Your task to perform on an android device: check android version Image 0: 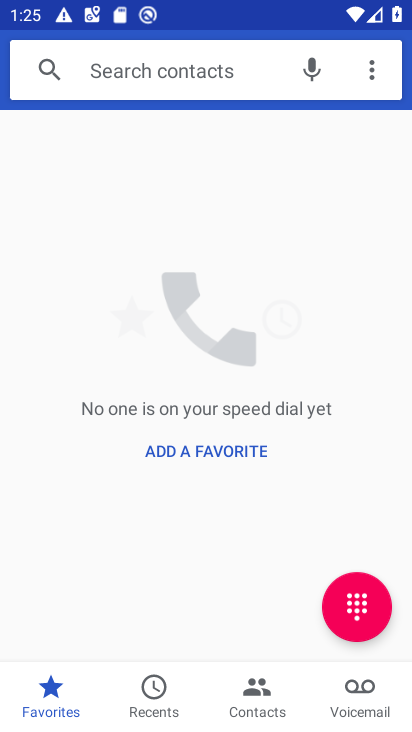
Step 0: press home button
Your task to perform on an android device: check android version Image 1: 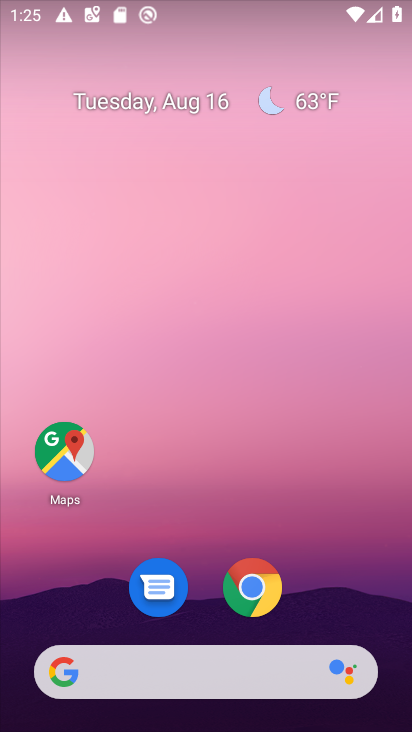
Step 1: drag from (195, 653) to (175, 460)
Your task to perform on an android device: check android version Image 2: 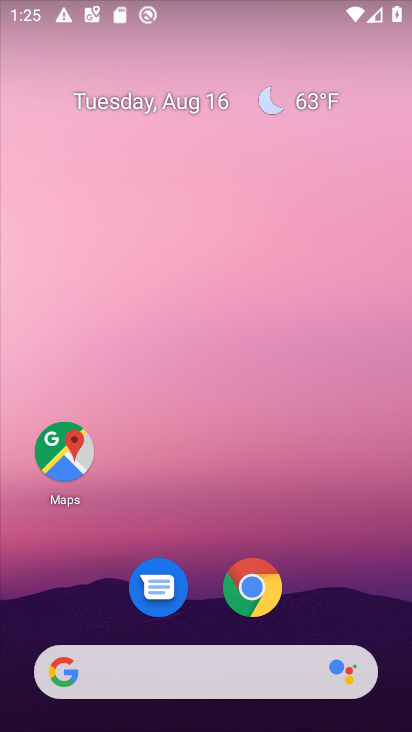
Step 2: drag from (264, 644) to (355, 127)
Your task to perform on an android device: check android version Image 3: 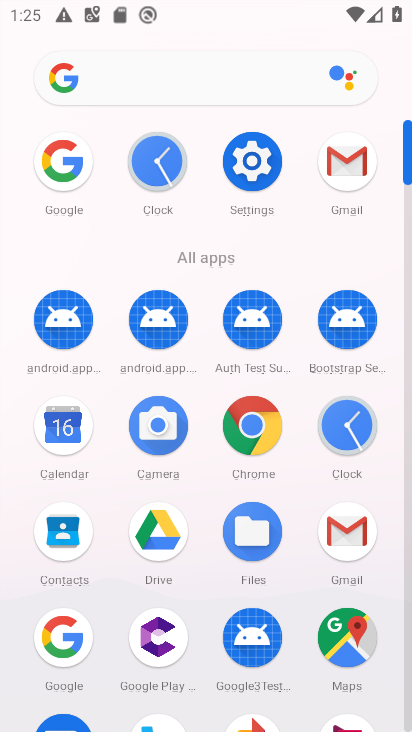
Step 3: click (256, 164)
Your task to perform on an android device: check android version Image 4: 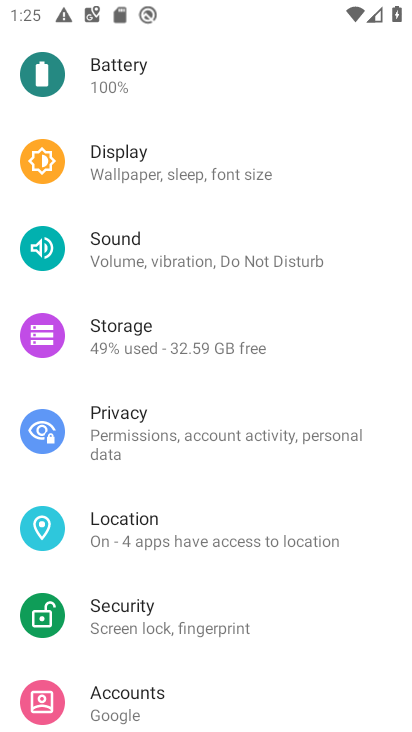
Step 4: drag from (225, 631) to (241, 182)
Your task to perform on an android device: check android version Image 5: 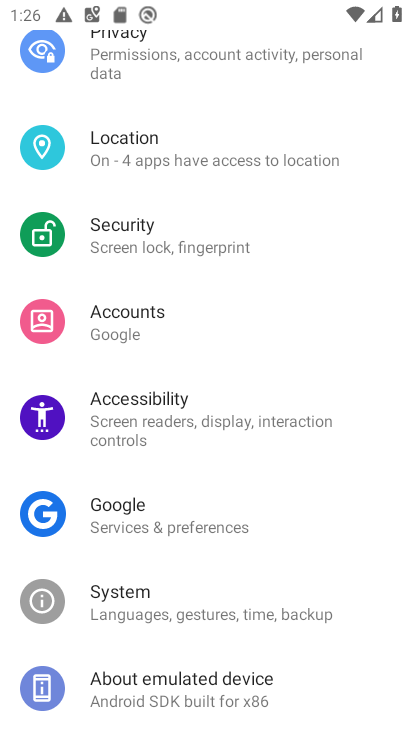
Step 5: click (241, 685)
Your task to perform on an android device: check android version Image 6: 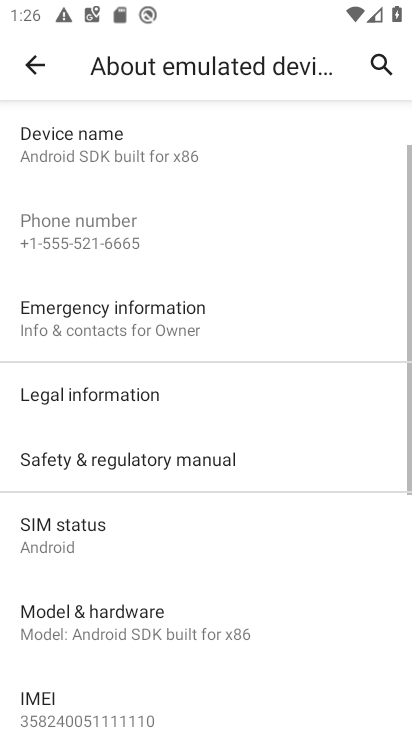
Step 6: drag from (236, 683) to (271, 314)
Your task to perform on an android device: check android version Image 7: 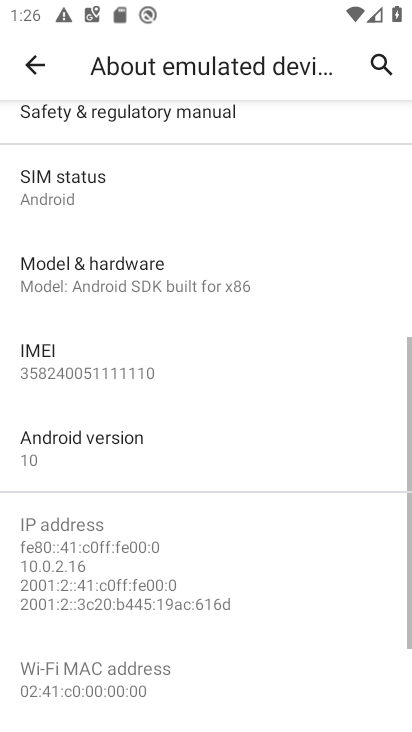
Step 7: click (99, 463)
Your task to perform on an android device: check android version Image 8: 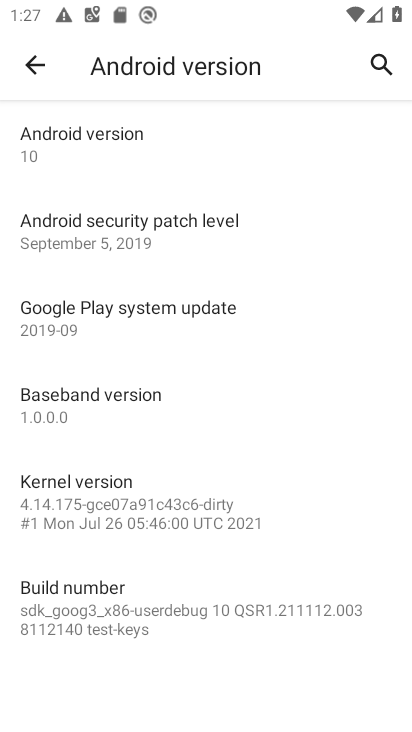
Step 8: task complete